Your task to perform on an android device: Open privacy settings Image 0: 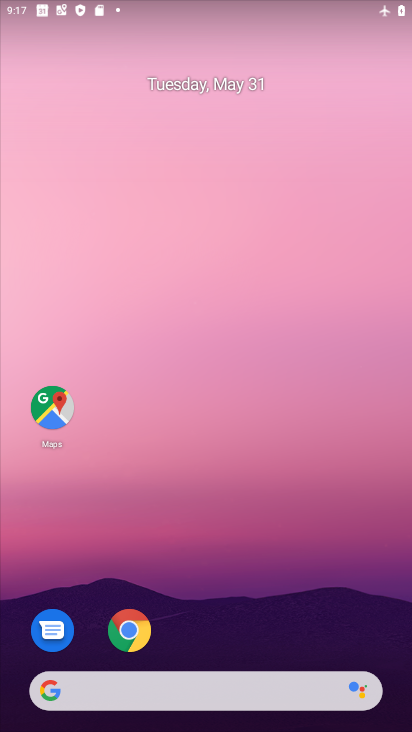
Step 0: drag from (231, 624) to (267, 209)
Your task to perform on an android device: Open privacy settings Image 1: 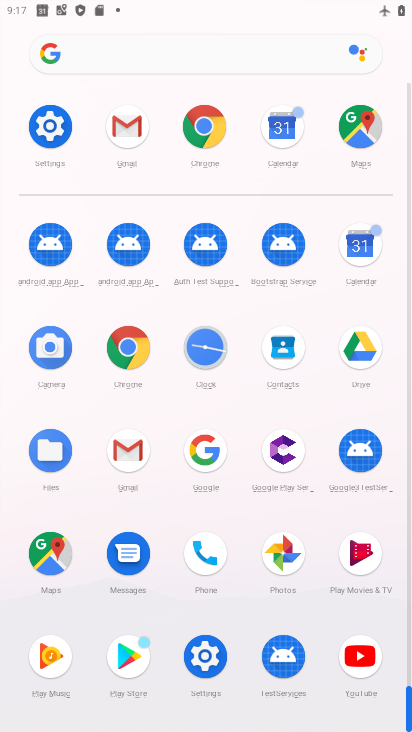
Step 1: click (39, 108)
Your task to perform on an android device: Open privacy settings Image 2: 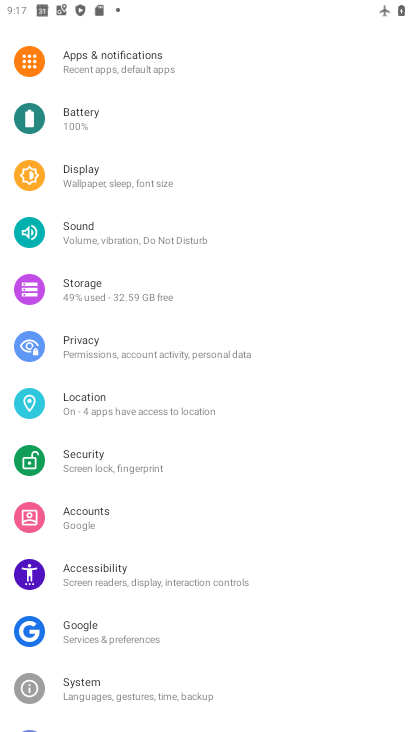
Step 2: click (107, 344)
Your task to perform on an android device: Open privacy settings Image 3: 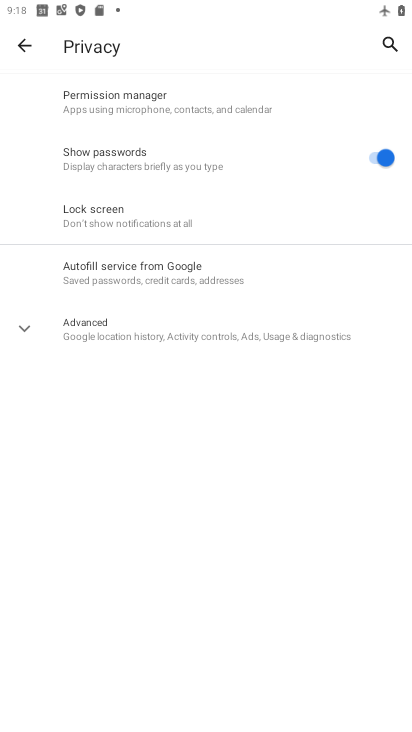
Step 3: task complete